Your task to perform on an android device: Set the phone to "Do not disturb". Image 0: 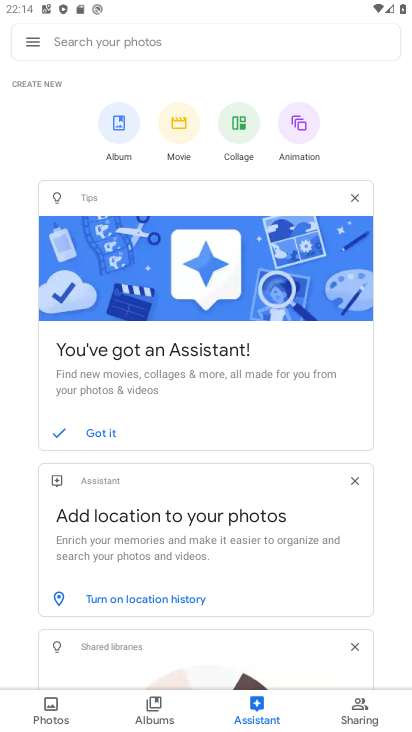
Step 0: press home button
Your task to perform on an android device: Set the phone to "Do not disturb". Image 1: 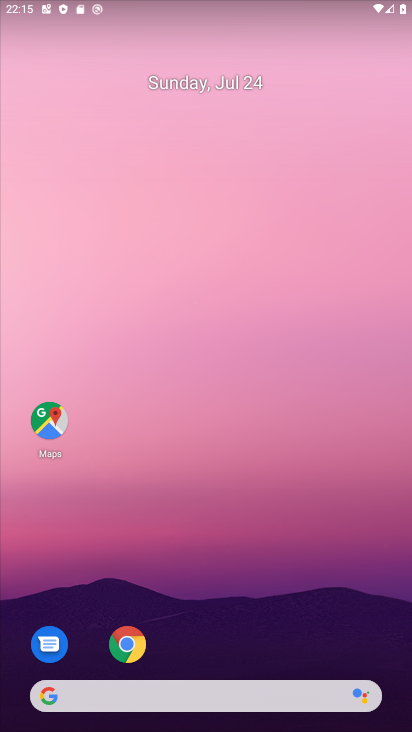
Step 1: drag from (322, 645) to (319, 109)
Your task to perform on an android device: Set the phone to "Do not disturb". Image 2: 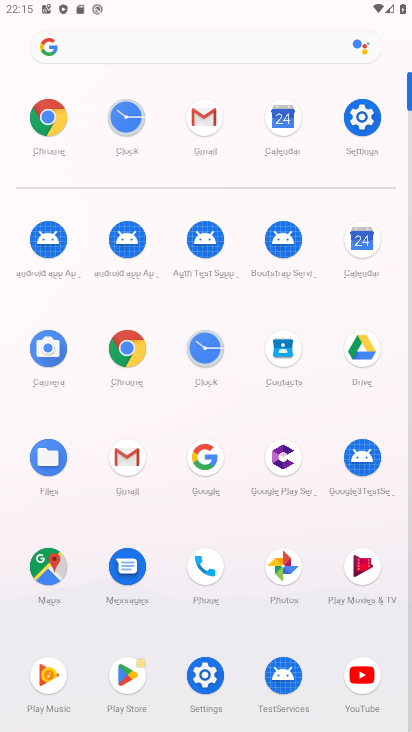
Step 2: click (207, 674)
Your task to perform on an android device: Set the phone to "Do not disturb". Image 3: 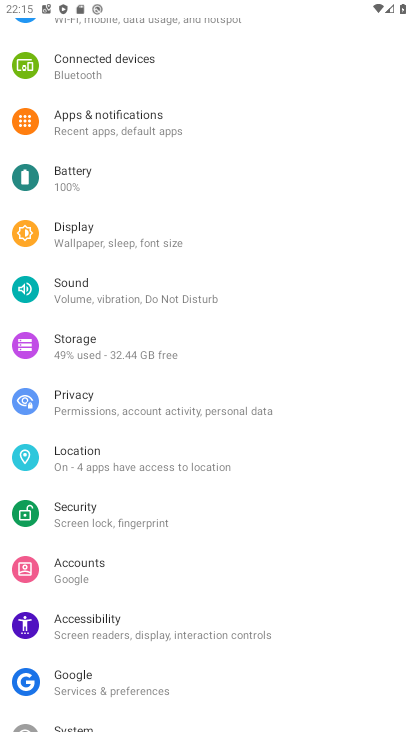
Step 3: click (83, 289)
Your task to perform on an android device: Set the phone to "Do not disturb". Image 4: 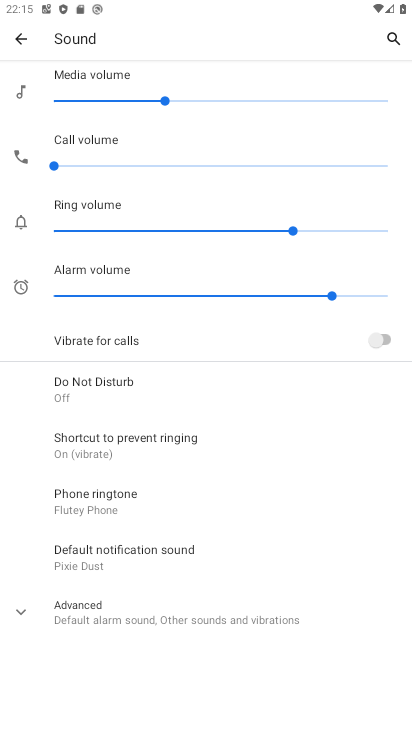
Step 4: click (96, 389)
Your task to perform on an android device: Set the phone to "Do not disturb". Image 5: 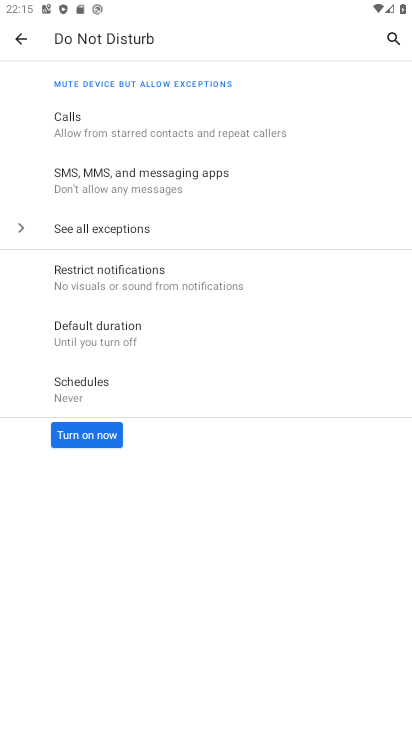
Step 5: click (83, 434)
Your task to perform on an android device: Set the phone to "Do not disturb". Image 6: 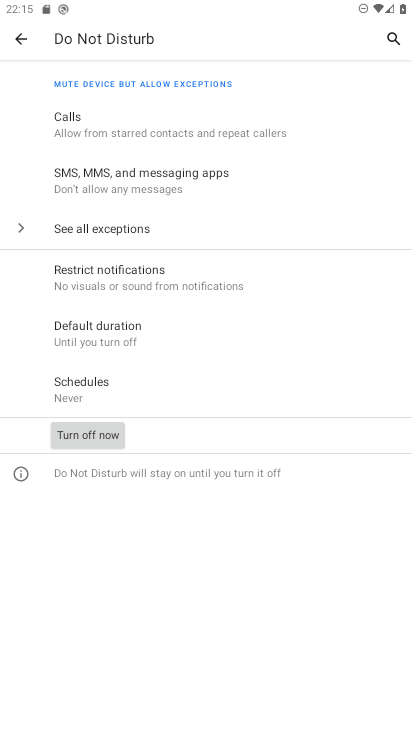
Step 6: task complete